Your task to perform on an android device: Go to Yahoo.com Image 0: 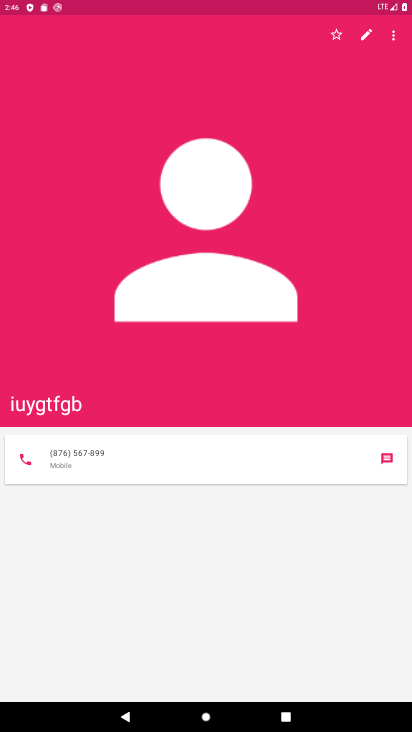
Step 0: press home button
Your task to perform on an android device: Go to Yahoo.com Image 1: 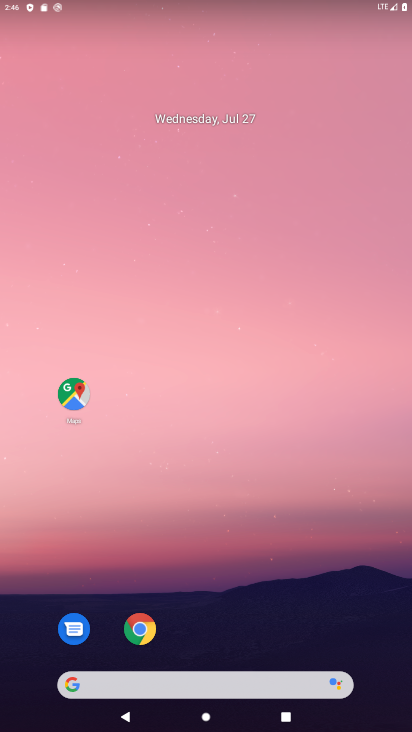
Step 1: click (132, 615)
Your task to perform on an android device: Go to Yahoo.com Image 2: 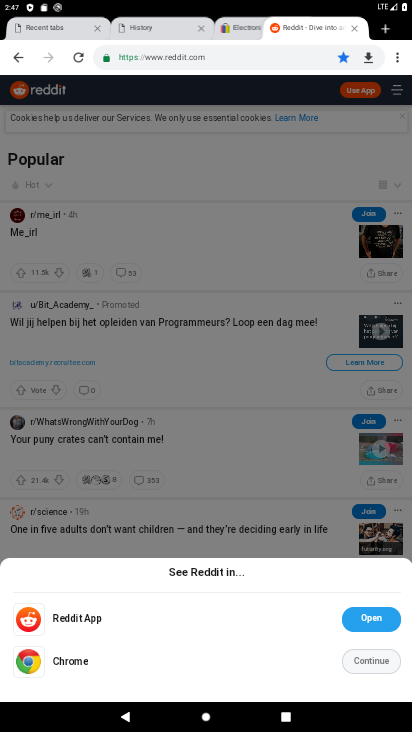
Step 2: click (385, 30)
Your task to perform on an android device: Go to Yahoo.com Image 3: 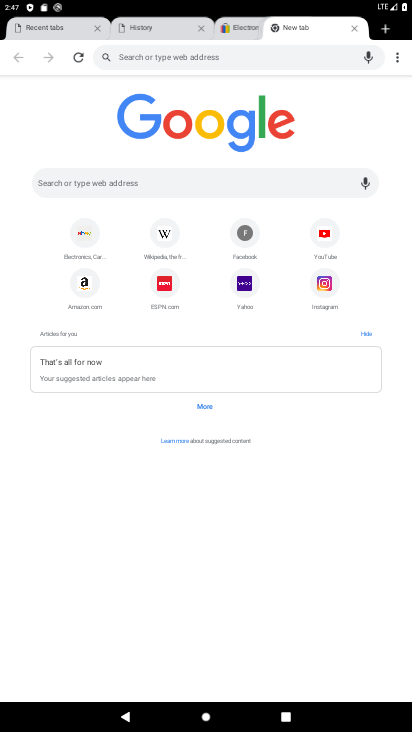
Step 3: click (235, 286)
Your task to perform on an android device: Go to Yahoo.com Image 4: 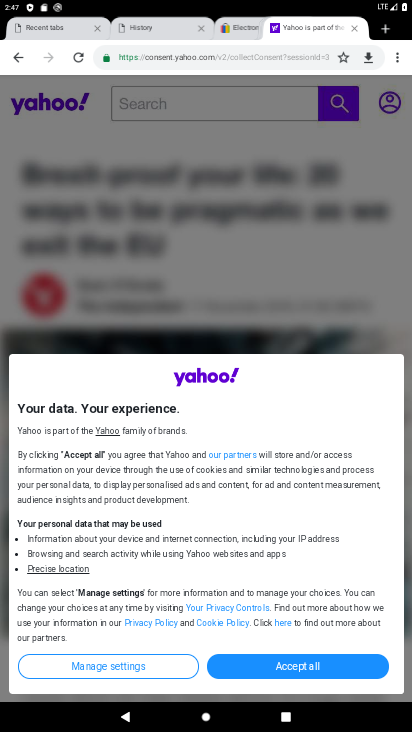
Step 4: task complete